Your task to perform on an android device: Go to sound settings Image 0: 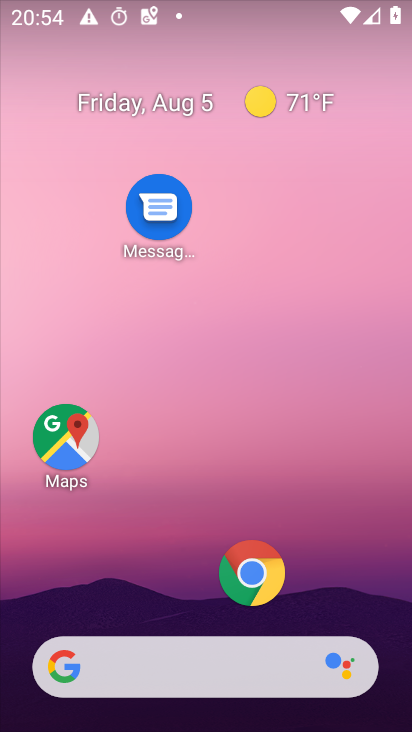
Step 0: drag from (208, 607) to (285, 0)
Your task to perform on an android device: Go to sound settings Image 1: 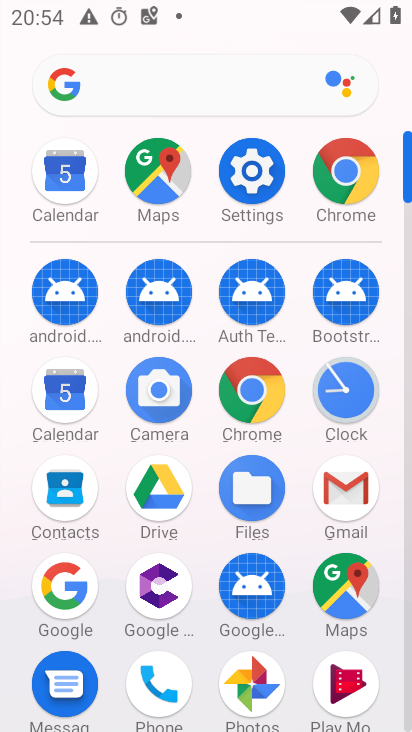
Step 1: click (245, 163)
Your task to perform on an android device: Go to sound settings Image 2: 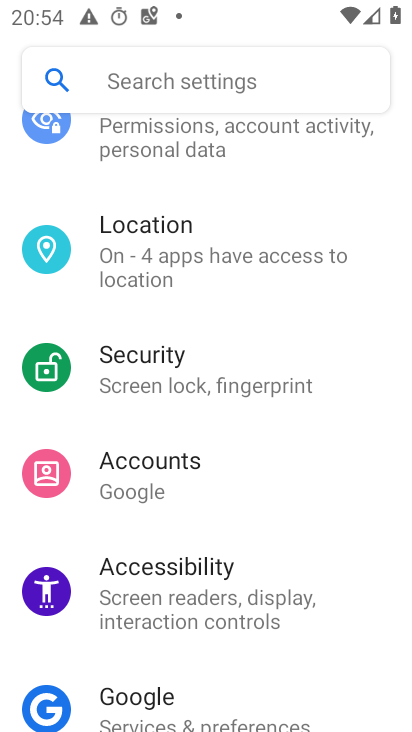
Step 2: drag from (193, 213) to (206, 607)
Your task to perform on an android device: Go to sound settings Image 3: 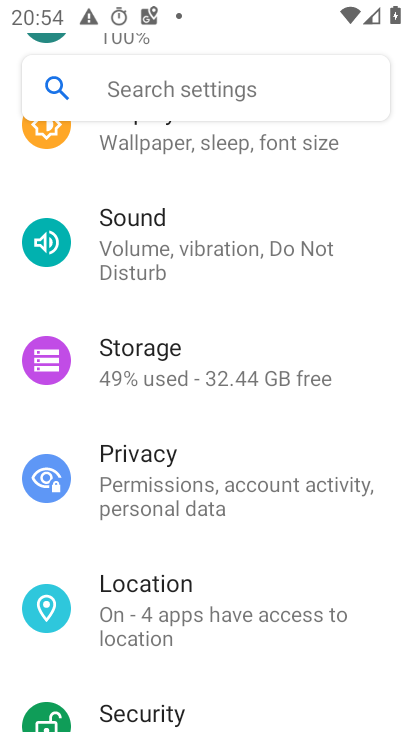
Step 3: click (182, 230)
Your task to perform on an android device: Go to sound settings Image 4: 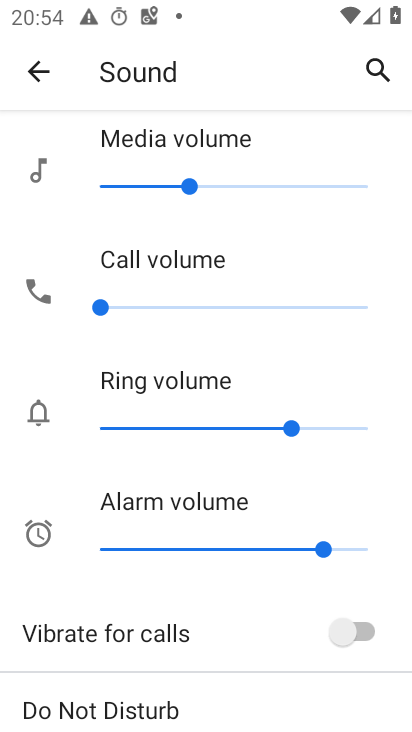
Step 4: drag from (214, 673) to (230, 92)
Your task to perform on an android device: Go to sound settings Image 5: 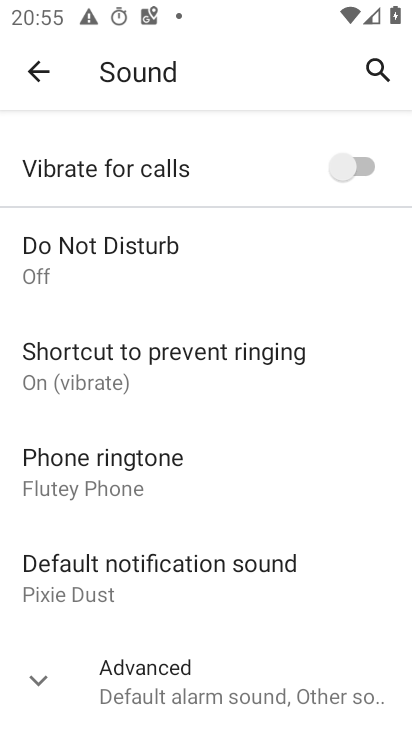
Step 5: click (33, 670)
Your task to perform on an android device: Go to sound settings Image 6: 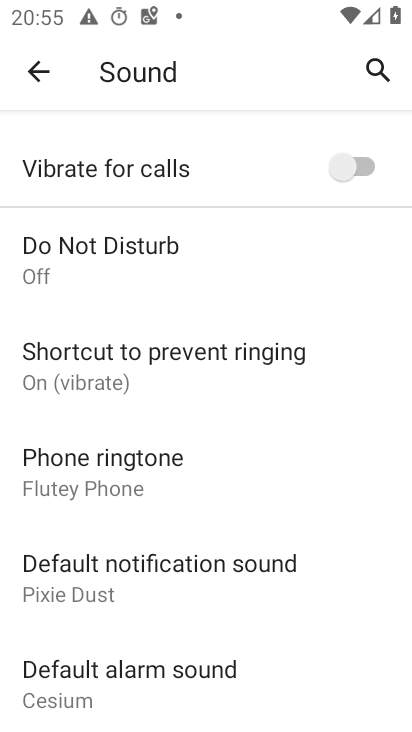
Step 6: task complete